Your task to perform on an android device: Open CNN.com Image 0: 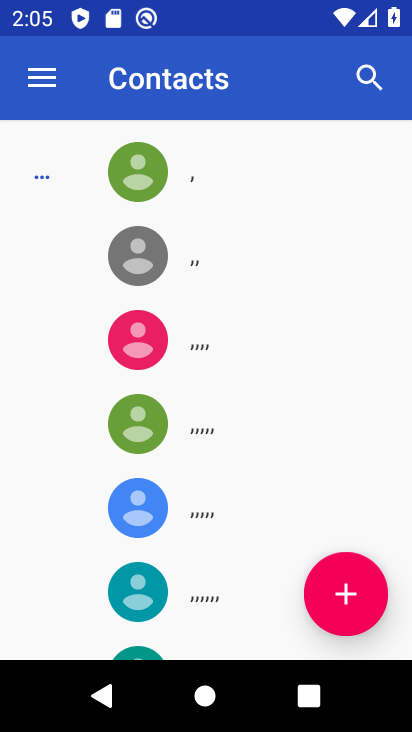
Step 0: press home button
Your task to perform on an android device: Open CNN.com Image 1: 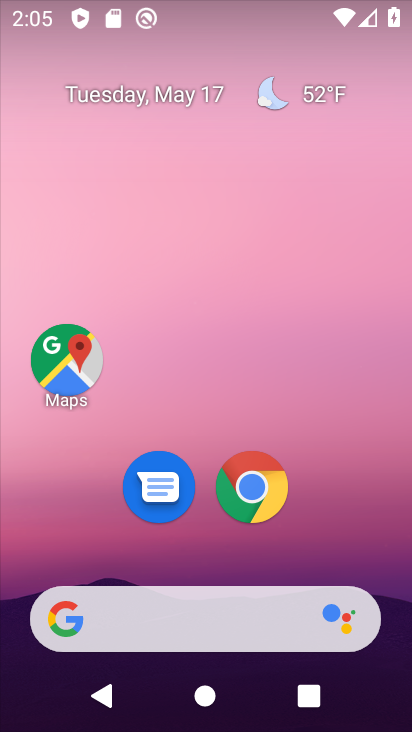
Step 1: drag from (394, 228) to (384, 160)
Your task to perform on an android device: Open CNN.com Image 2: 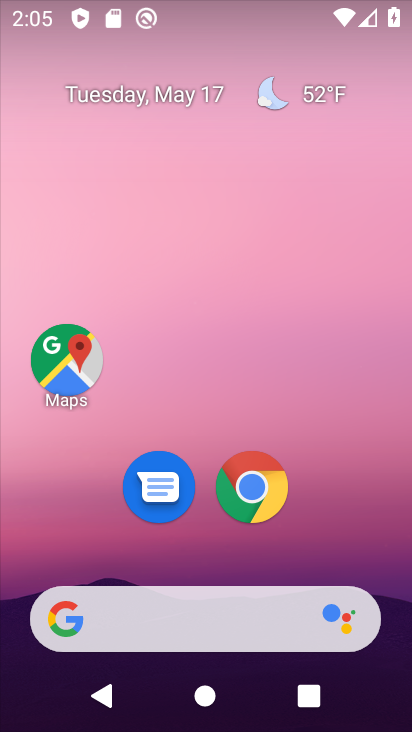
Step 2: drag from (398, 613) to (367, 217)
Your task to perform on an android device: Open CNN.com Image 3: 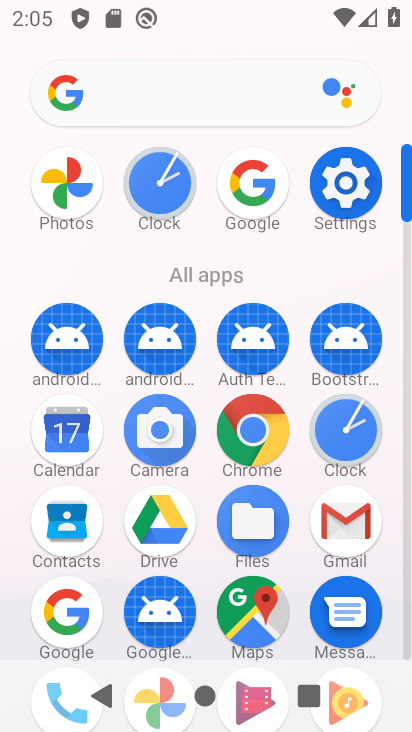
Step 3: click (253, 436)
Your task to perform on an android device: Open CNN.com Image 4: 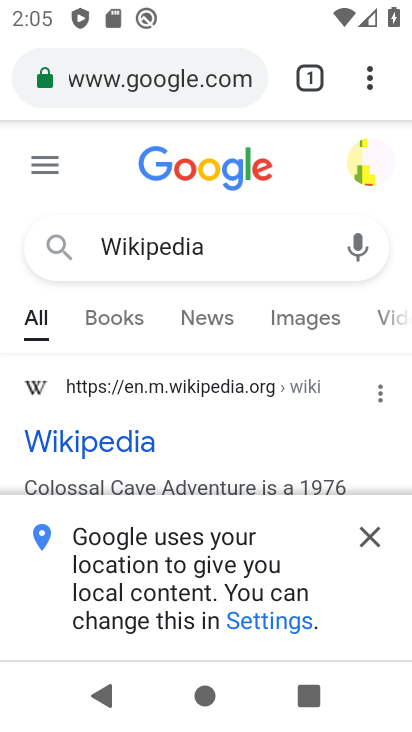
Step 4: click (253, 75)
Your task to perform on an android device: Open CNN.com Image 5: 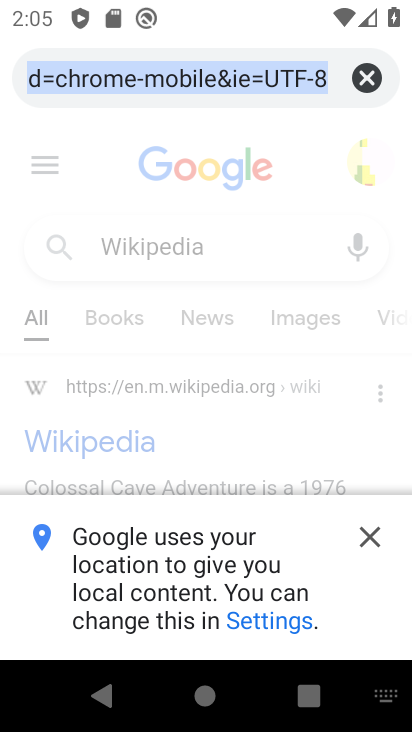
Step 5: click (351, 77)
Your task to perform on an android device: Open CNN.com Image 6: 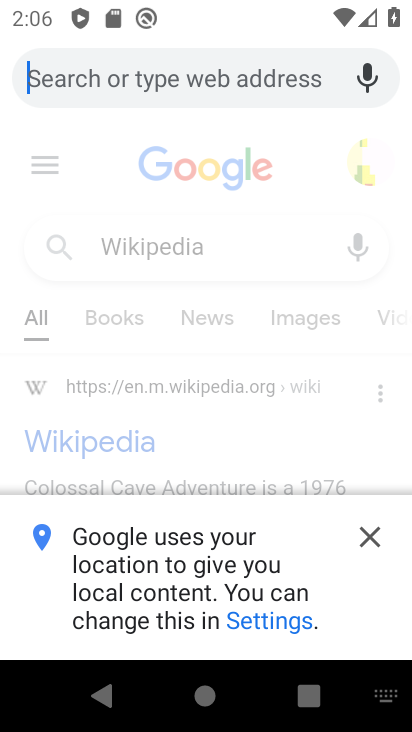
Step 6: type "CNN.com"
Your task to perform on an android device: Open CNN.com Image 7: 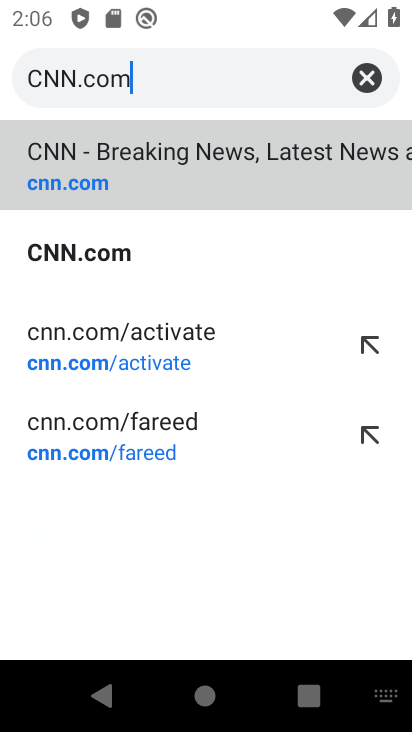
Step 7: click (82, 250)
Your task to perform on an android device: Open CNN.com Image 8: 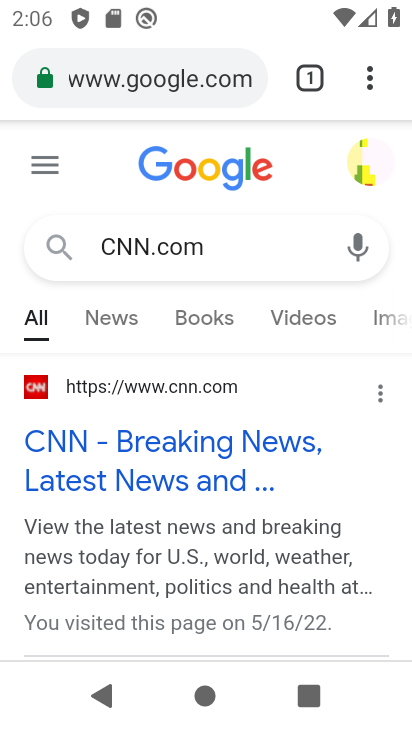
Step 8: task complete